Your task to perform on an android device: Is it going to rain today? Image 0: 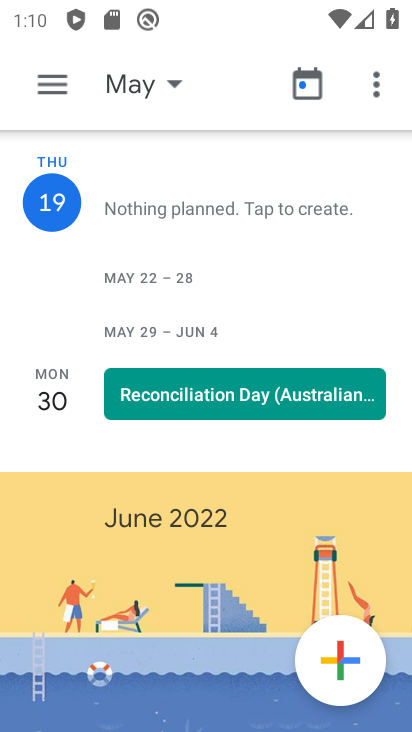
Step 0: press home button
Your task to perform on an android device: Is it going to rain today? Image 1: 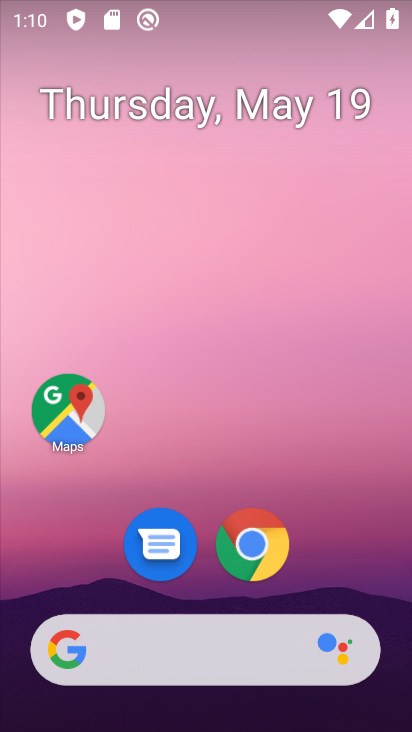
Step 1: drag from (270, 707) to (89, 29)
Your task to perform on an android device: Is it going to rain today? Image 2: 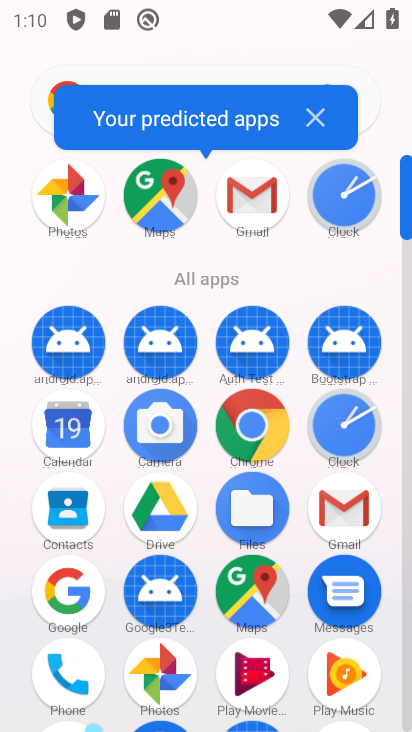
Step 2: click (328, 117)
Your task to perform on an android device: Is it going to rain today? Image 3: 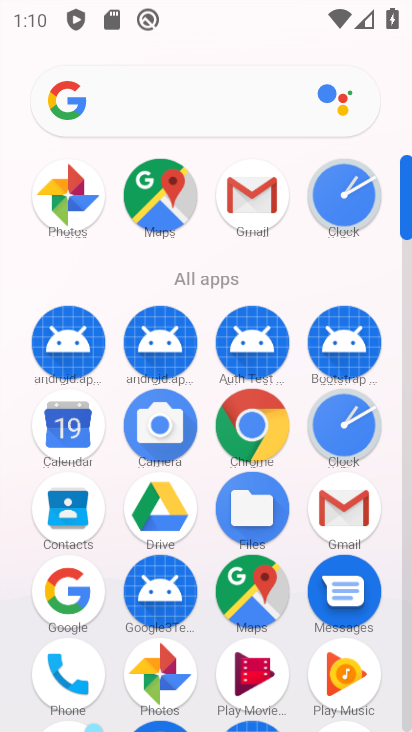
Step 3: click (171, 96)
Your task to perform on an android device: Is it going to rain today? Image 4: 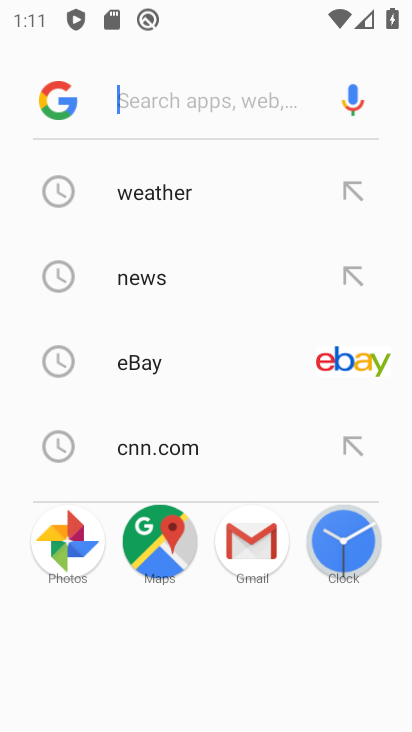
Step 4: click (151, 117)
Your task to perform on an android device: Is it going to rain today? Image 5: 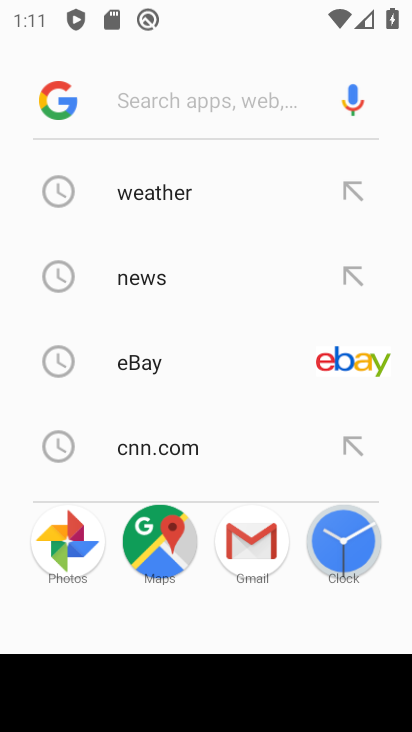
Step 5: drag from (390, 703) to (389, 649)
Your task to perform on an android device: Is it going to rain today? Image 6: 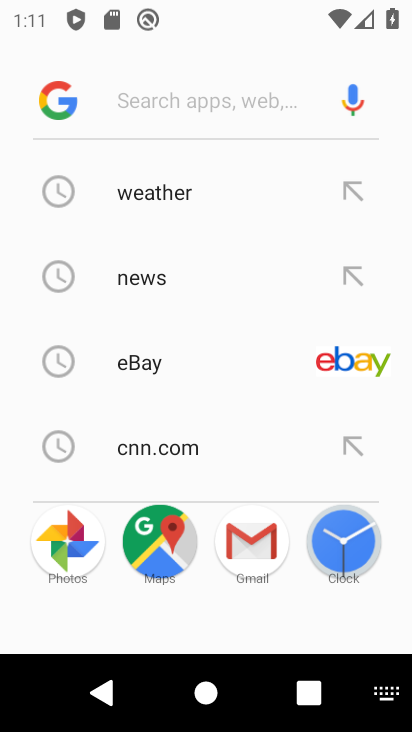
Step 6: click (382, 691)
Your task to perform on an android device: Is it going to rain today? Image 7: 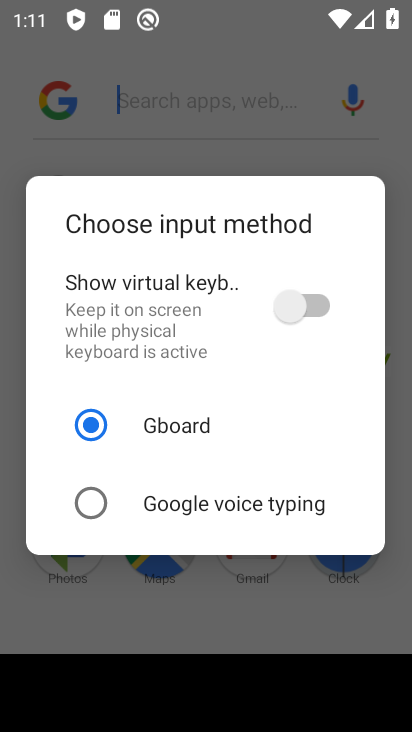
Step 7: click (315, 310)
Your task to perform on an android device: Is it going to rain today? Image 8: 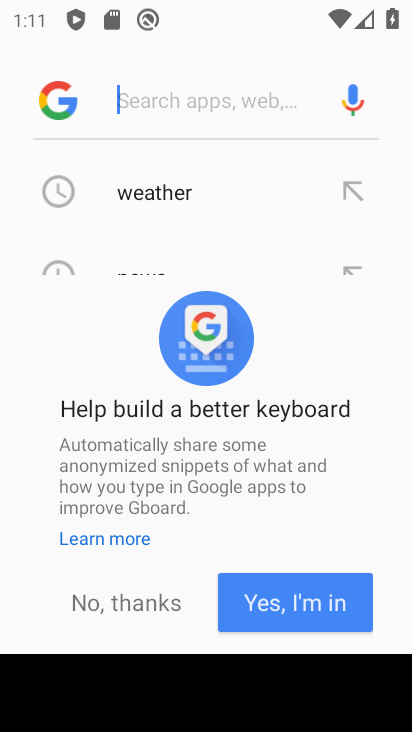
Step 8: click (130, 604)
Your task to perform on an android device: Is it going to rain today? Image 9: 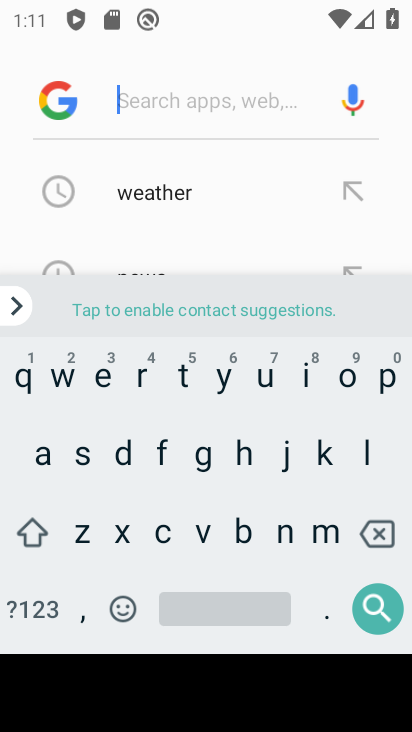
Step 9: click (175, 191)
Your task to perform on an android device: Is it going to rain today? Image 10: 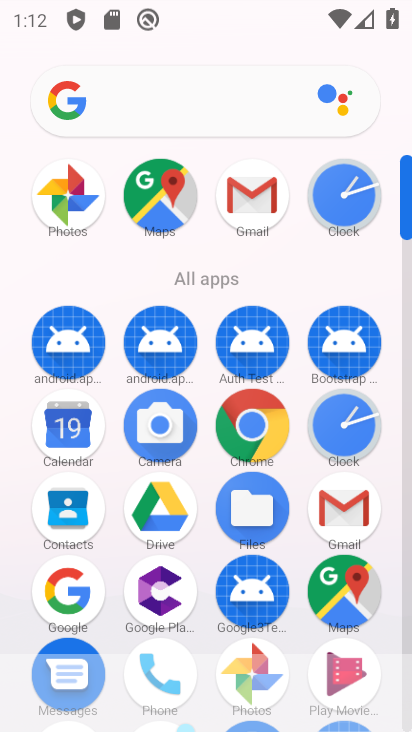
Step 10: click (157, 102)
Your task to perform on an android device: Is it going to rain today? Image 11: 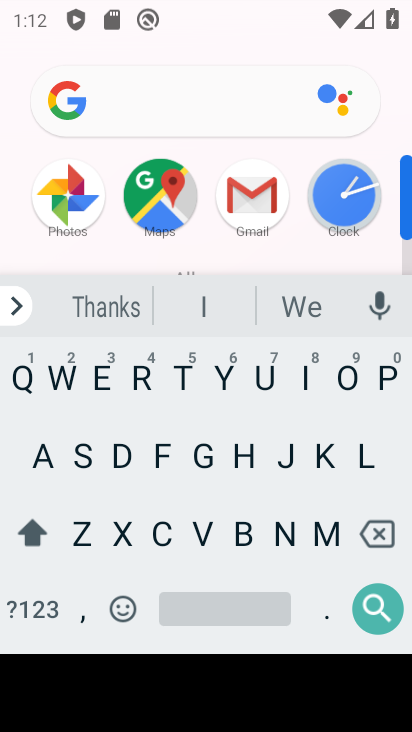
Step 11: click (140, 366)
Your task to perform on an android device: Is it going to rain today? Image 12: 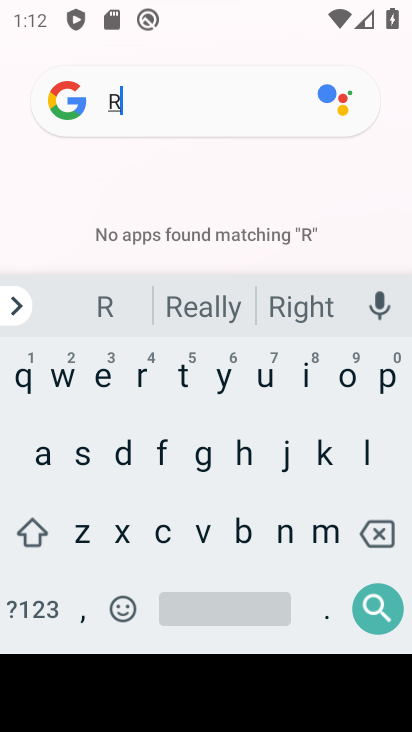
Step 12: click (32, 448)
Your task to perform on an android device: Is it going to rain today? Image 13: 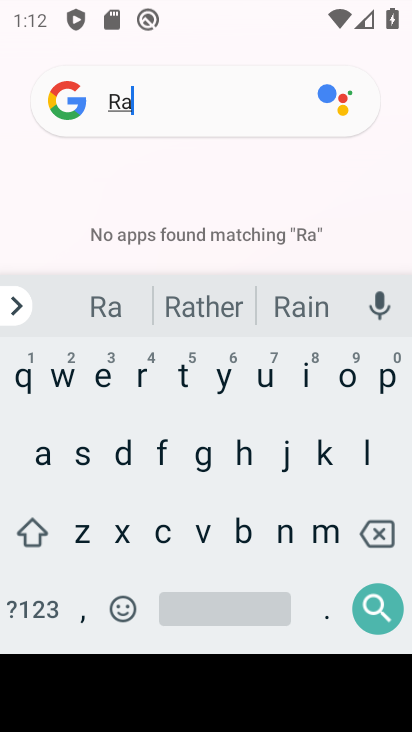
Step 13: click (299, 307)
Your task to perform on an android device: Is it going to rain today? Image 14: 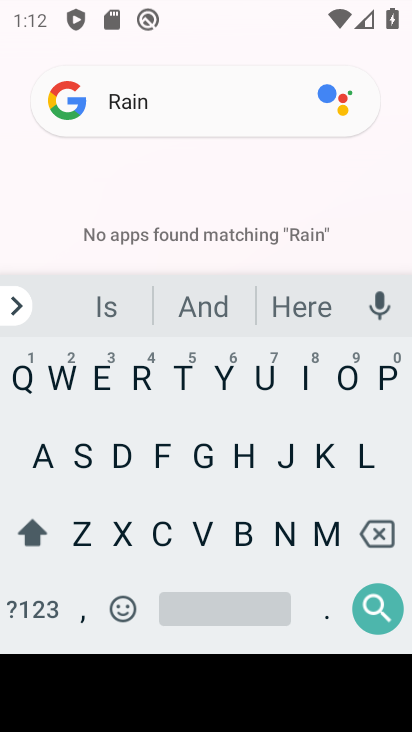
Step 14: click (183, 362)
Your task to perform on an android device: Is it going to rain today? Image 15: 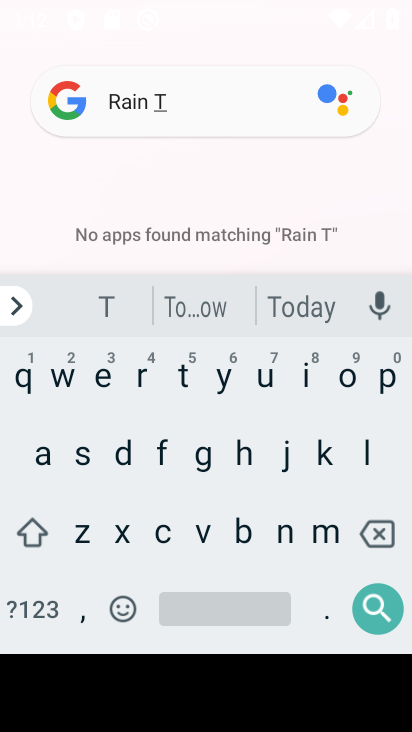
Step 15: click (313, 303)
Your task to perform on an android device: Is it going to rain today? Image 16: 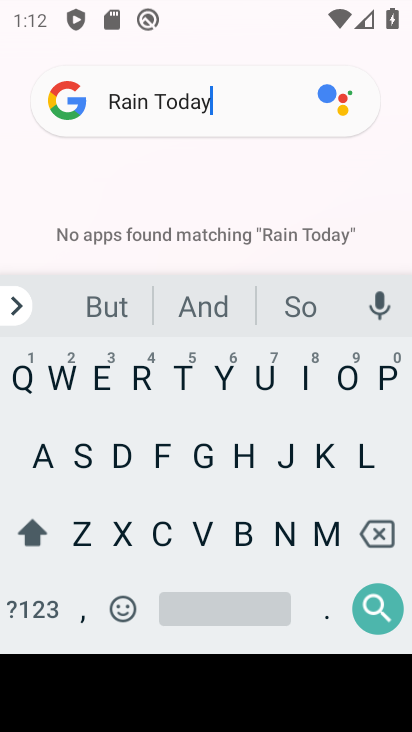
Step 16: click (378, 601)
Your task to perform on an android device: Is it going to rain today? Image 17: 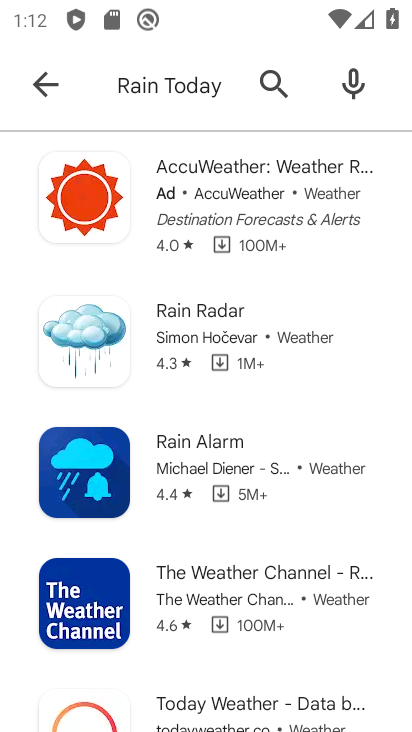
Step 17: task complete